Your task to perform on an android device: What's the weather going to be this weekend? Image 0: 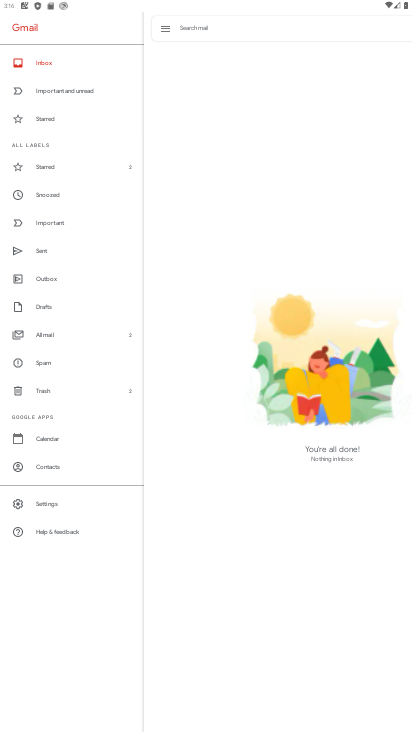
Step 0: press home button
Your task to perform on an android device: What's the weather going to be this weekend? Image 1: 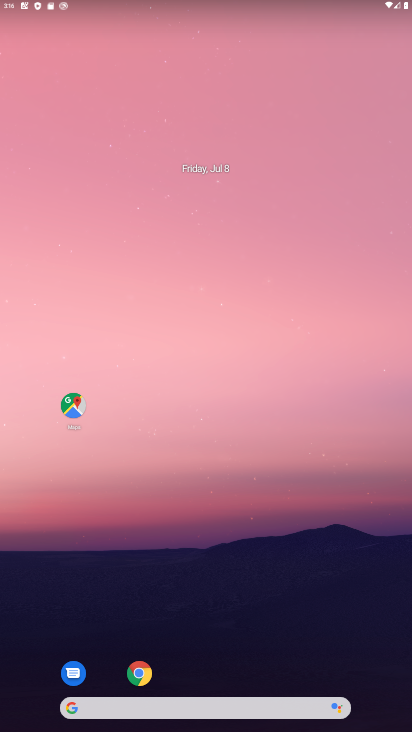
Step 1: click (218, 710)
Your task to perform on an android device: What's the weather going to be this weekend? Image 2: 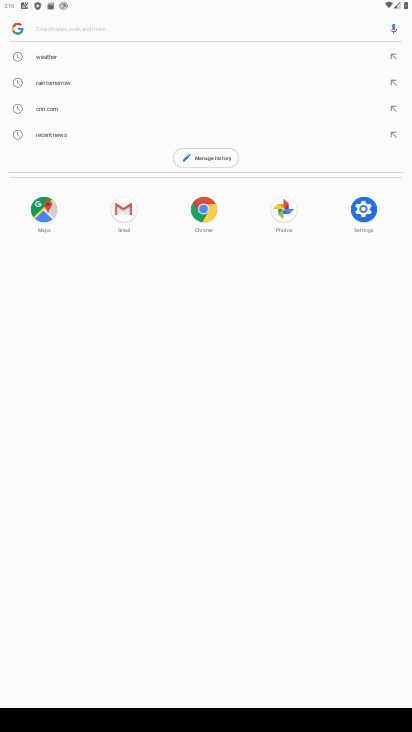
Step 2: type "weather"
Your task to perform on an android device: What's the weather going to be this weekend? Image 3: 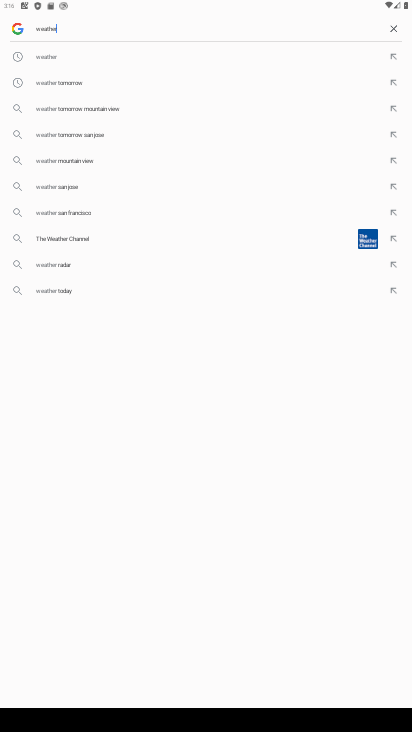
Step 3: click (51, 57)
Your task to perform on an android device: What's the weather going to be this weekend? Image 4: 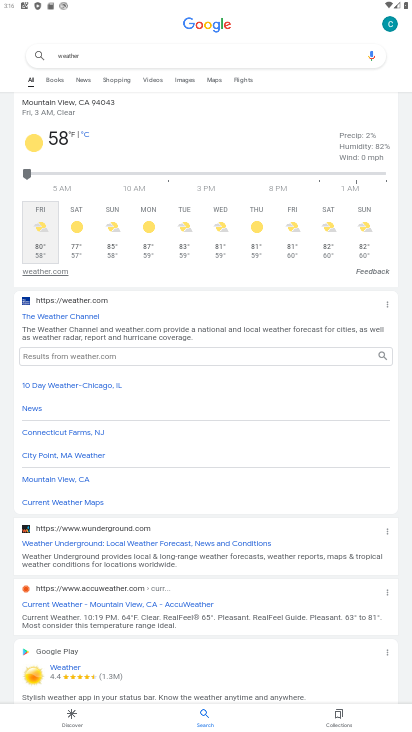
Step 4: task complete